Your task to perform on an android device: Go to Wikipedia Image 0: 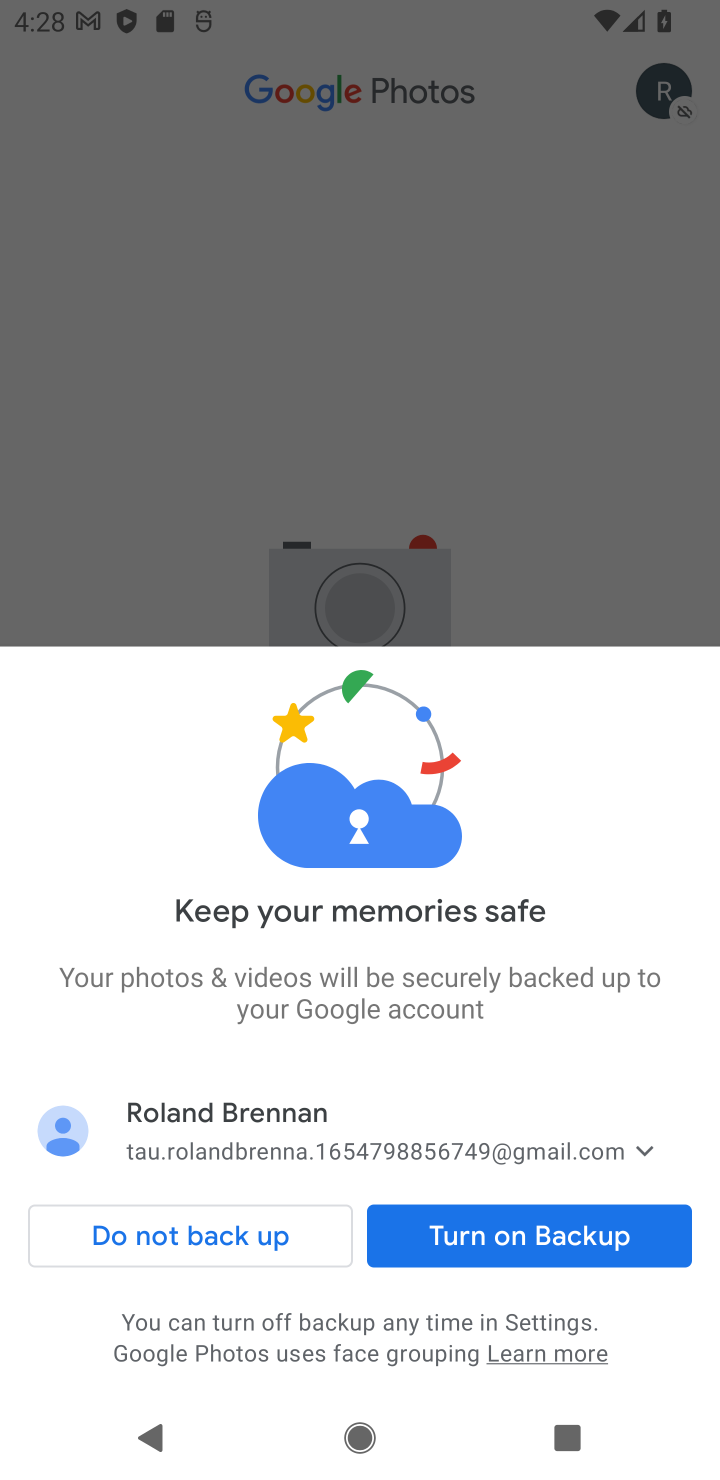
Step 0: press home button
Your task to perform on an android device: Go to Wikipedia Image 1: 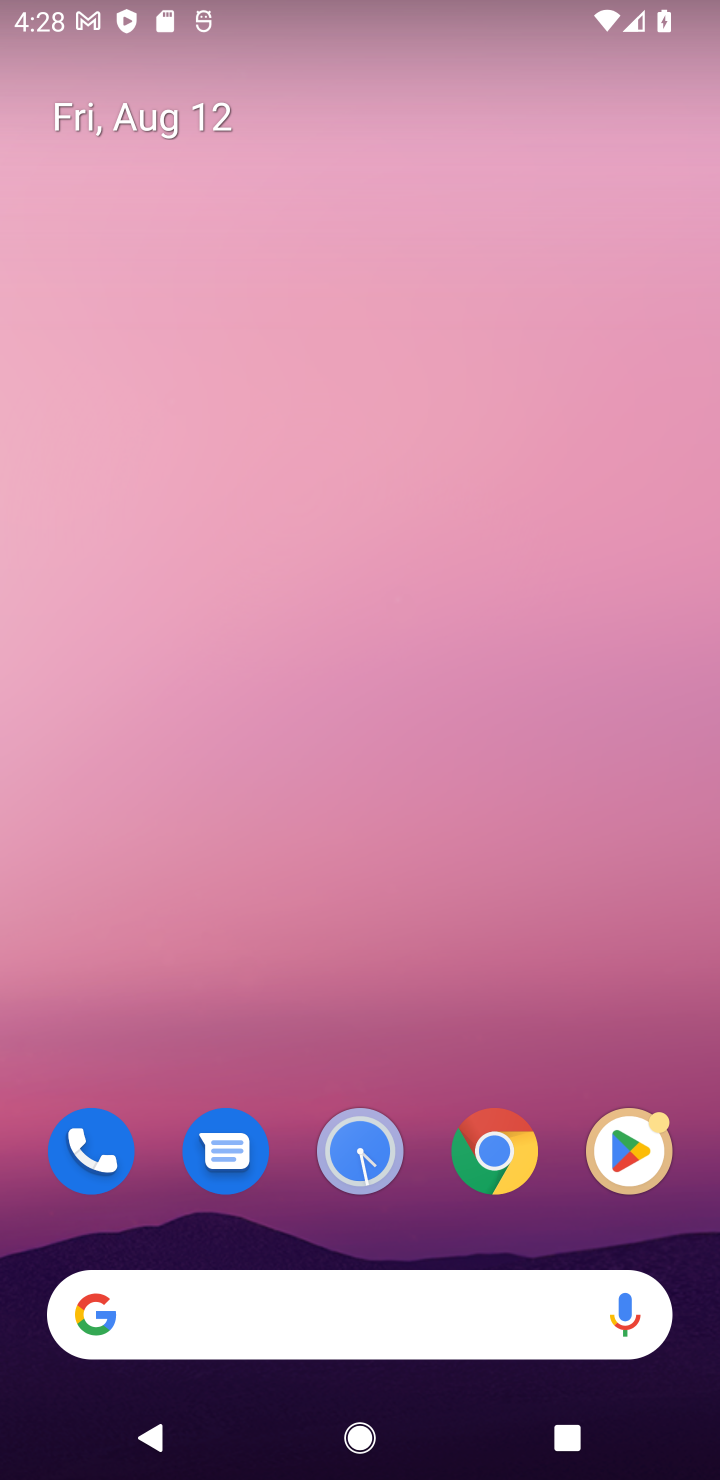
Step 1: drag from (391, 1084) to (473, 130)
Your task to perform on an android device: Go to Wikipedia Image 2: 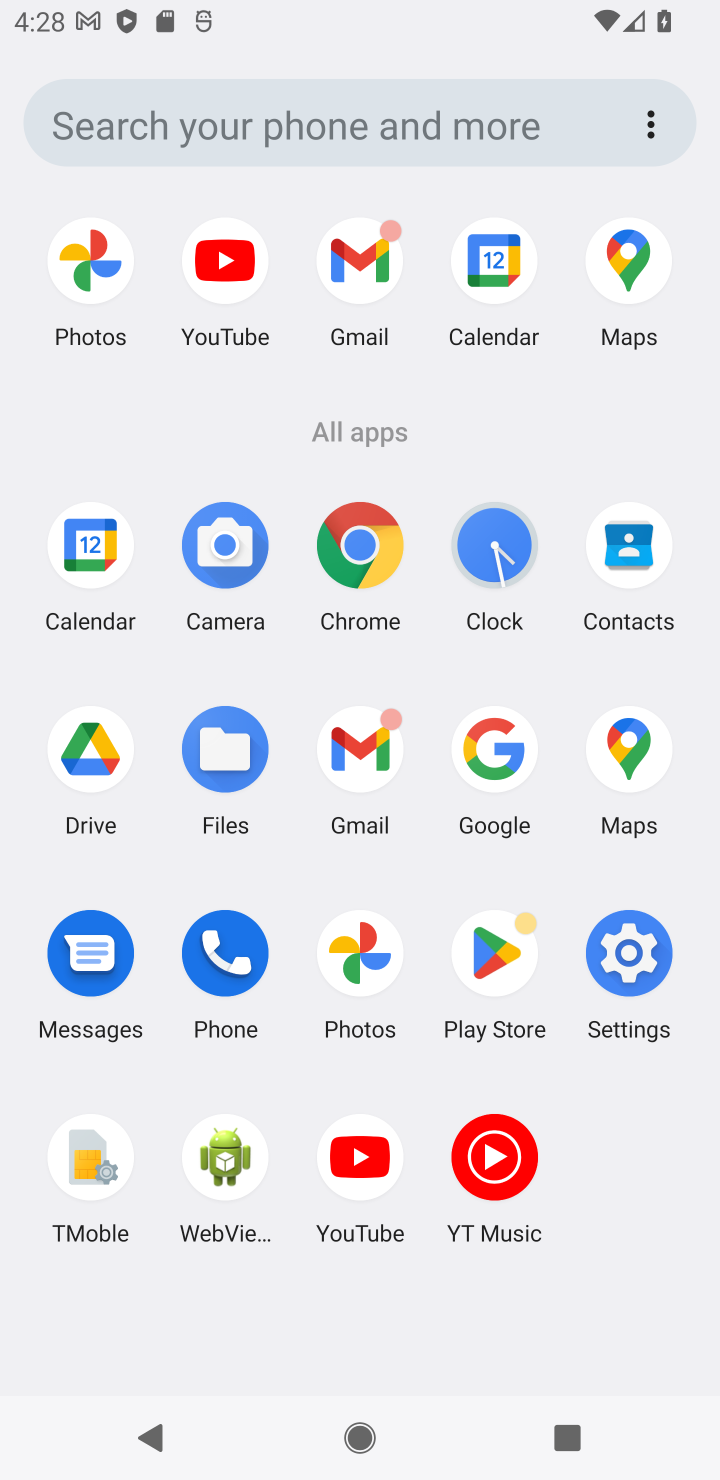
Step 2: click (365, 551)
Your task to perform on an android device: Go to Wikipedia Image 3: 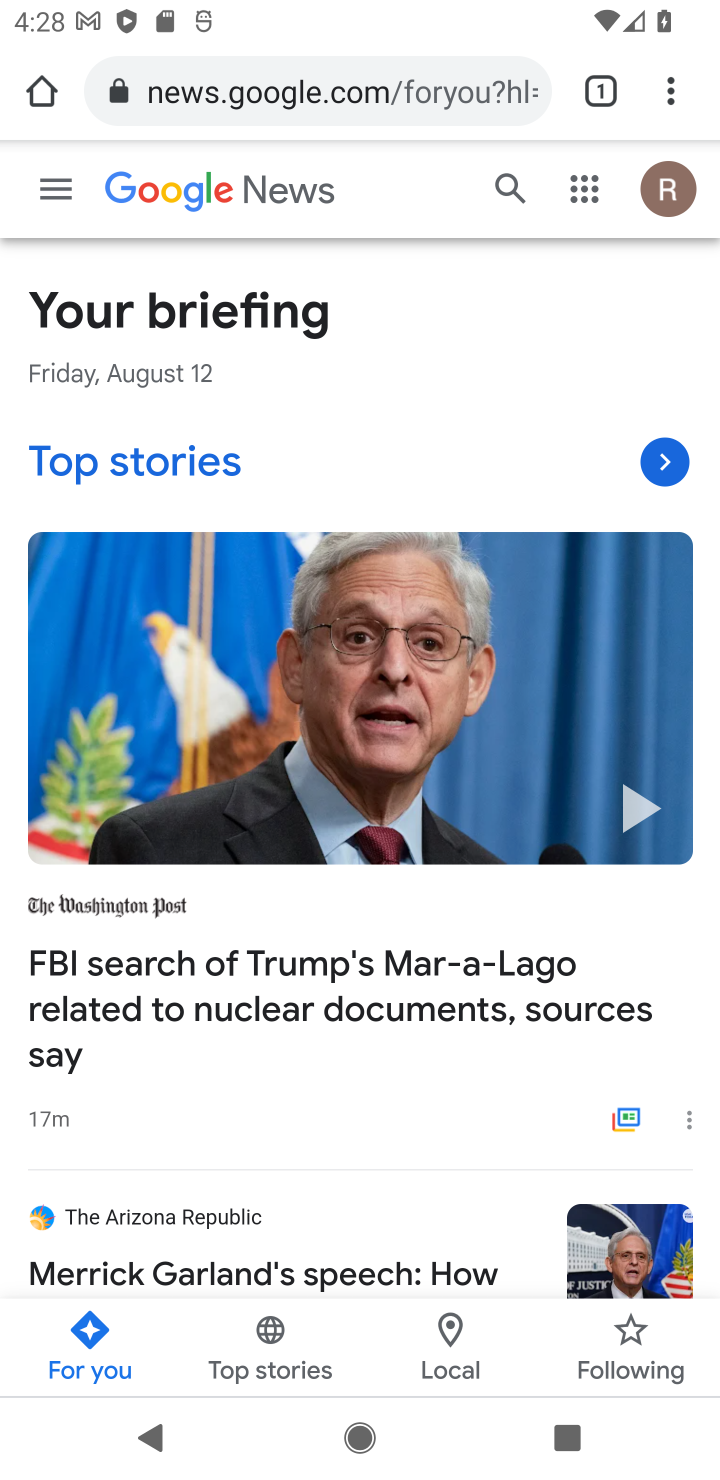
Step 3: click (355, 86)
Your task to perform on an android device: Go to Wikipedia Image 4: 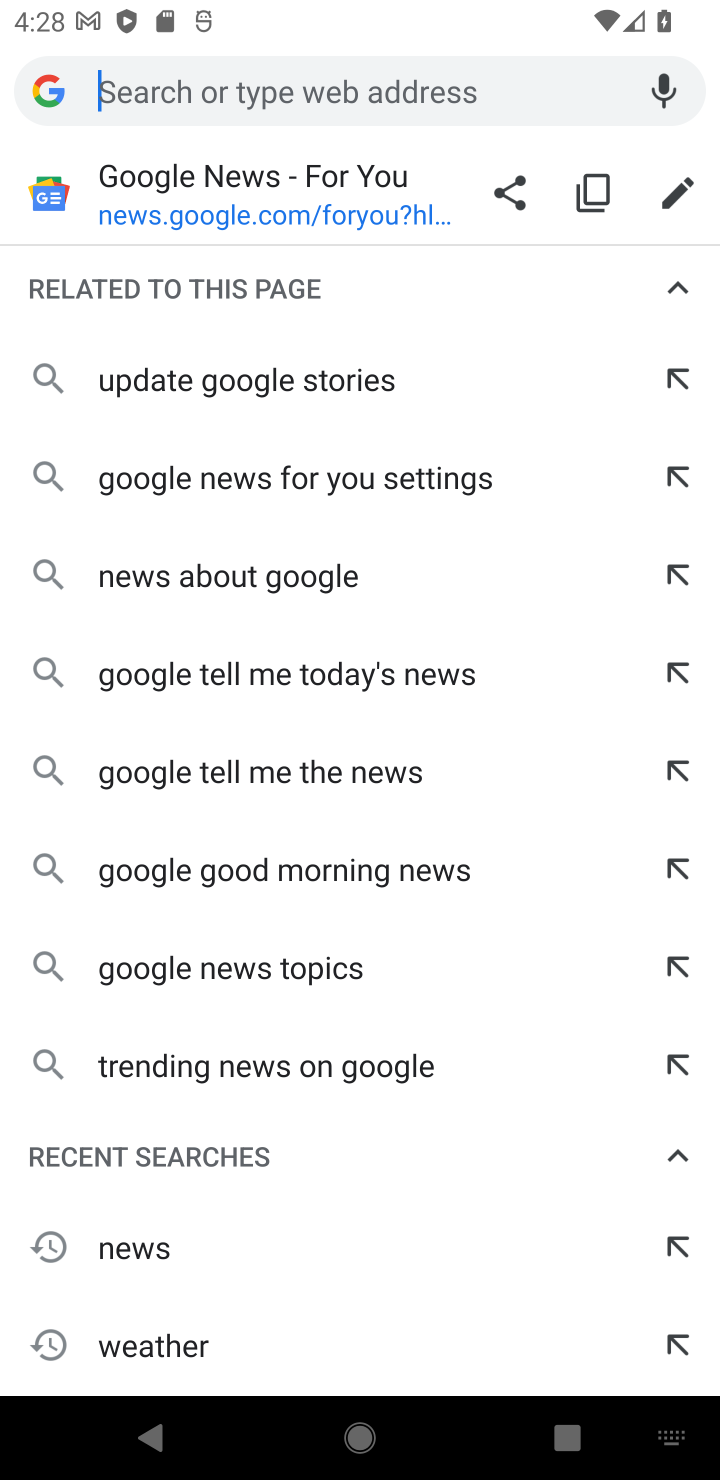
Step 4: type "wikipedia"
Your task to perform on an android device: Go to Wikipedia Image 5: 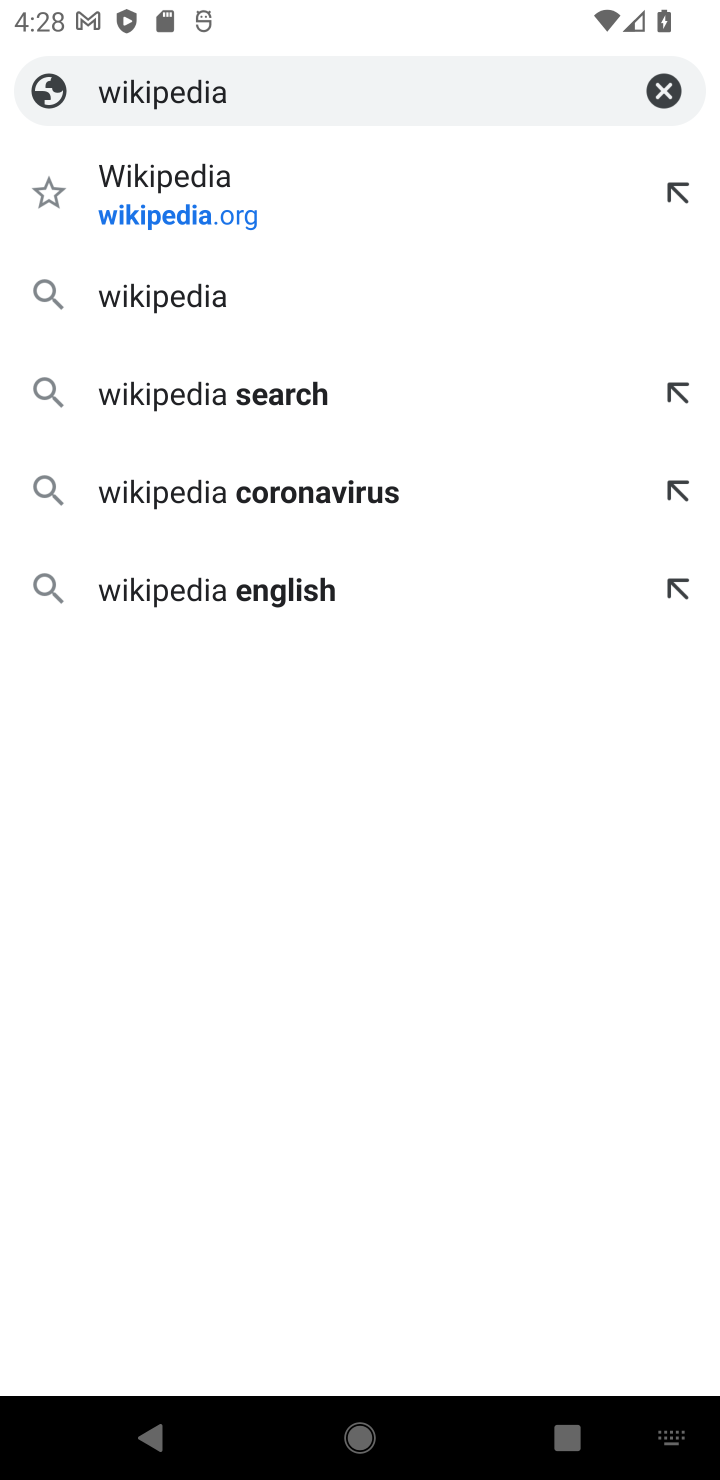
Step 5: click (209, 217)
Your task to perform on an android device: Go to Wikipedia Image 6: 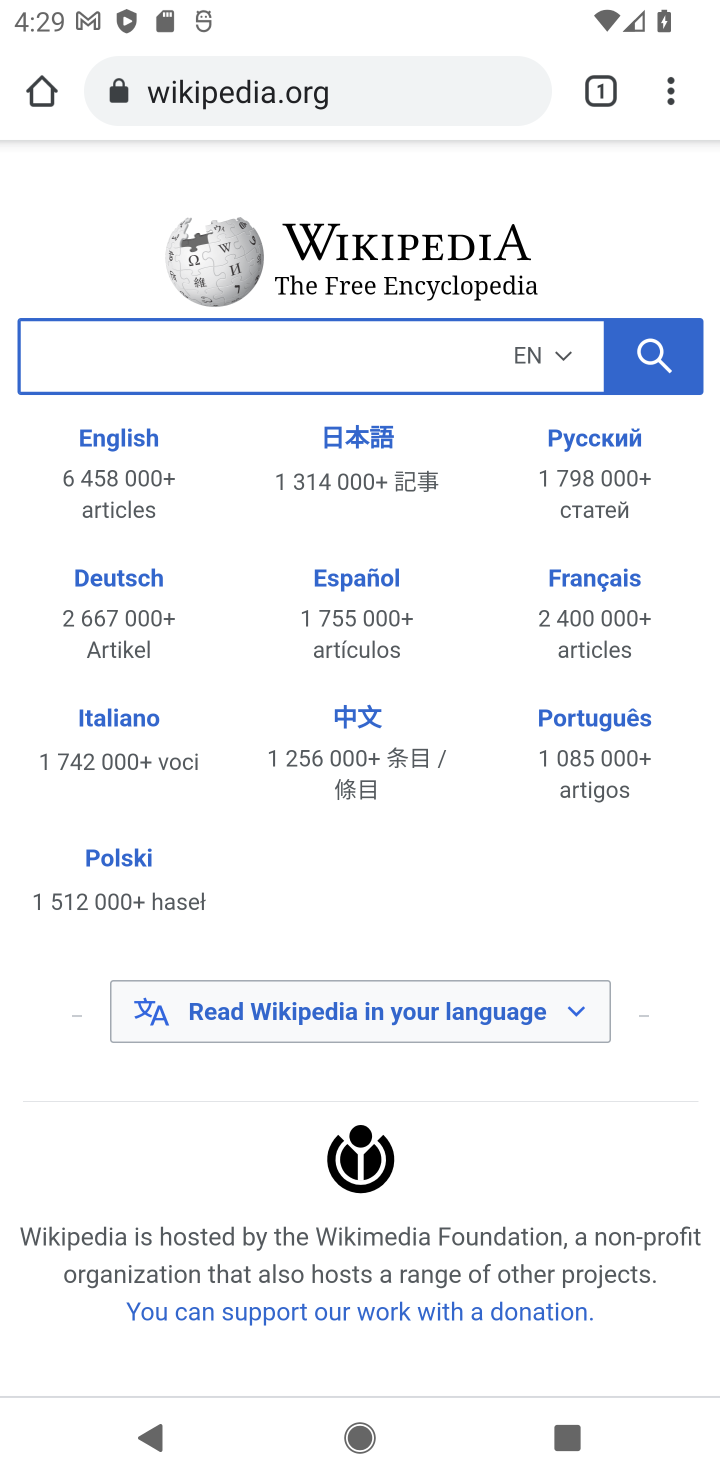
Step 6: task complete